Your task to perform on an android device: Go to privacy settings Image 0: 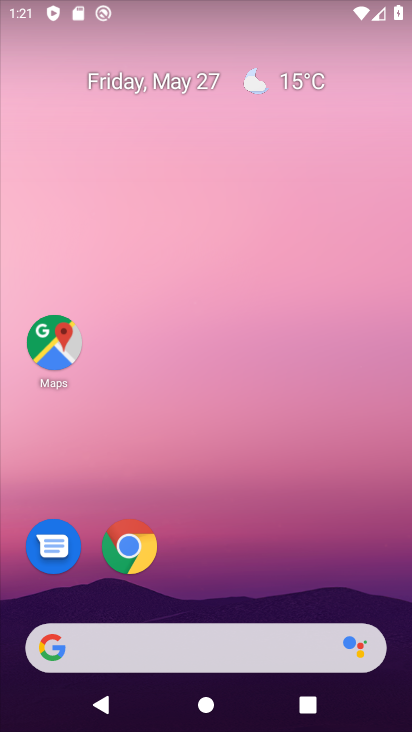
Step 0: drag from (311, 578) to (256, 164)
Your task to perform on an android device: Go to privacy settings Image 1: 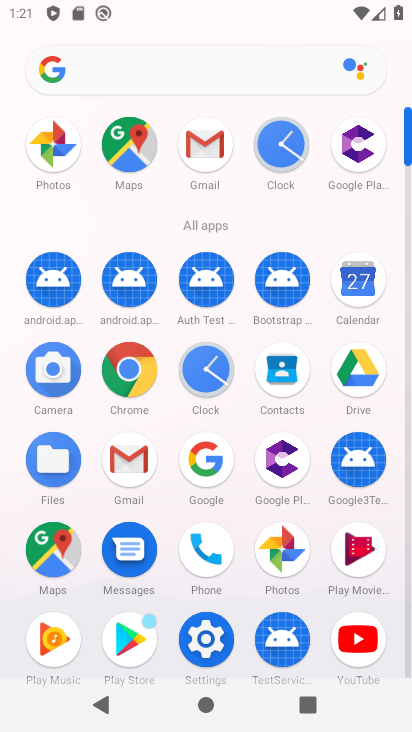
Step 1: click (218, 651)
Your task to perform on an android device: Go to privacy settings Image 2: 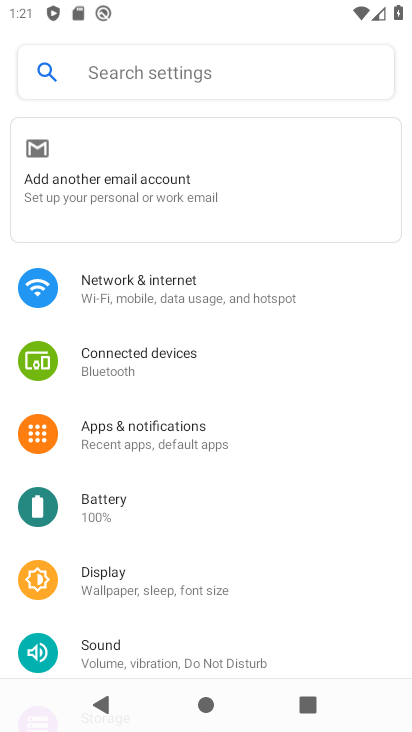
Step 2: drag from (233, 614) to (233, 349)
Your task to perform on an android device: Go to privacy settings Image 3: 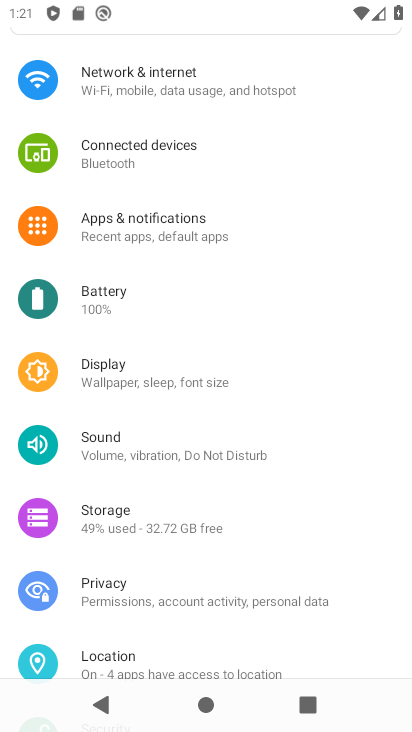
Step 3: click (191, 584)
Your task to perform on an android device: Go to privacy settings Image 4: 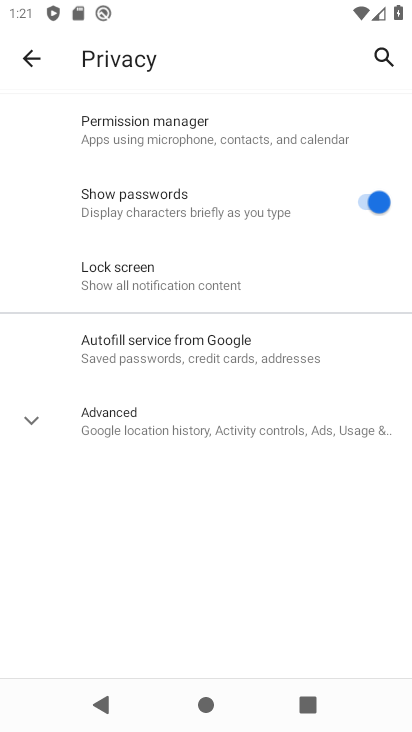
Step 4: task complete